Your task to perform on an android device: Show me recent news Image 0: 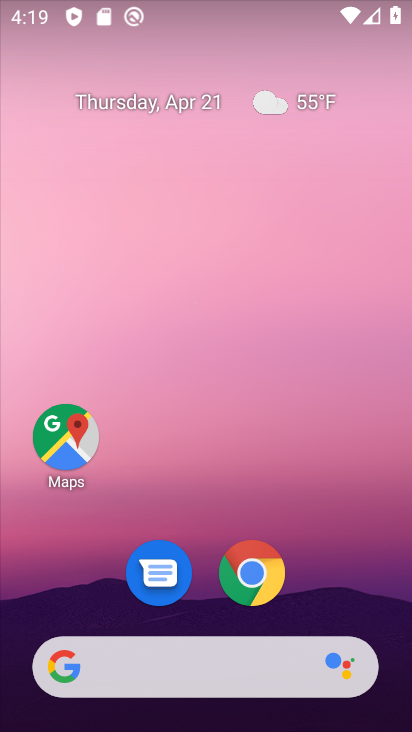
Step 0: drag from (8, 212) to (408, 335)
Your task to perform on an android device: Show me recent news Image 1: 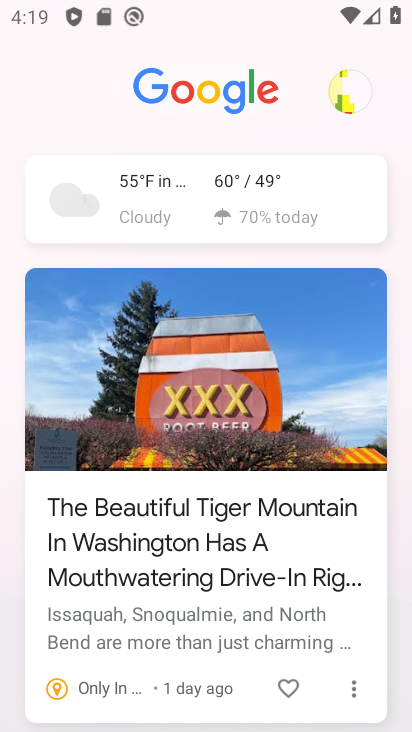
Step 1: task complete